Your task to perform on an android device: Search for seafood restaurants on Google Maps Image 0: 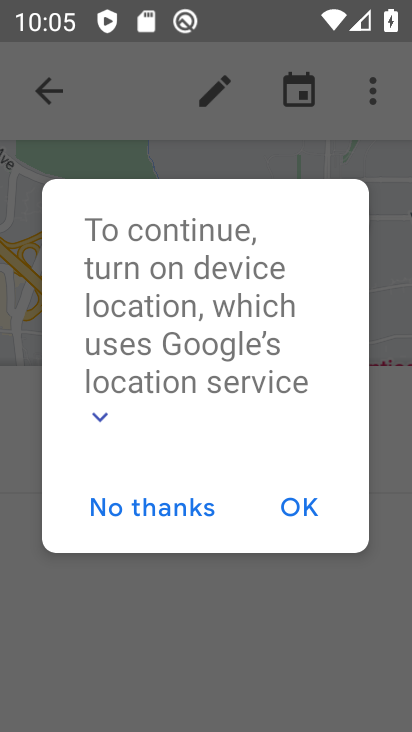
Step 0: click (296, 505)
Your task to perform on an android device: Search for seafood restaurants on Google Maps Image 1: 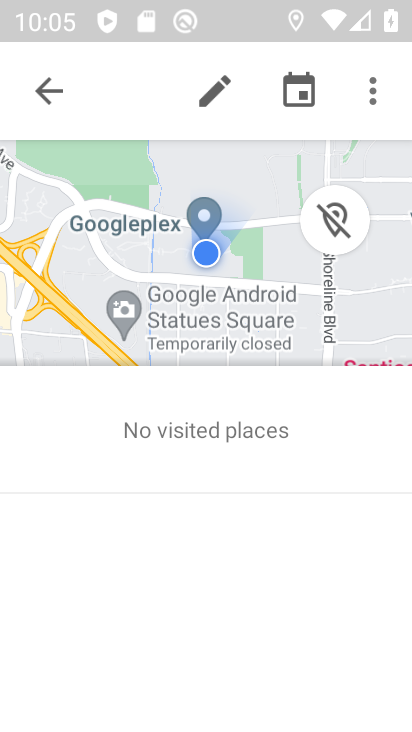
Step 1: press home button
Your task to perform on an android device: Search for seafood restaurants on Google Maps Image 2: 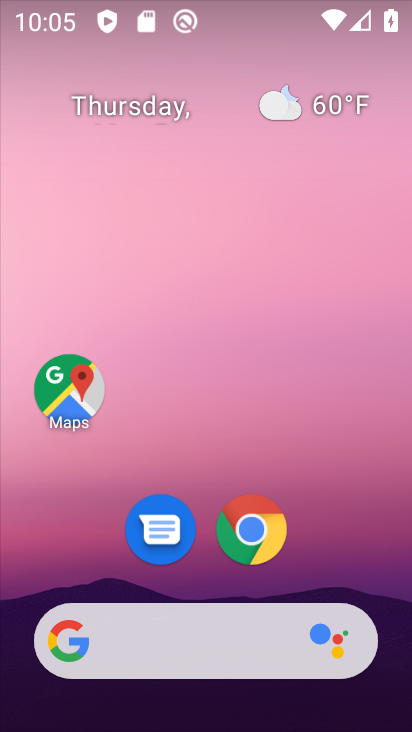
Step 2: click (72, 380)
Your task to perform on an android device: Search for seafood restaurants on Google Maps Image 3: 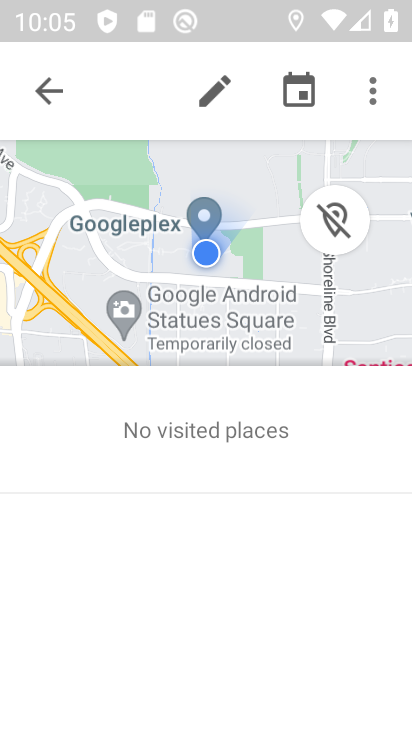
Step 3: click (48, 86)
Your task to perform on an android device: Search for seafood restaurants on Google Maps Image 4: 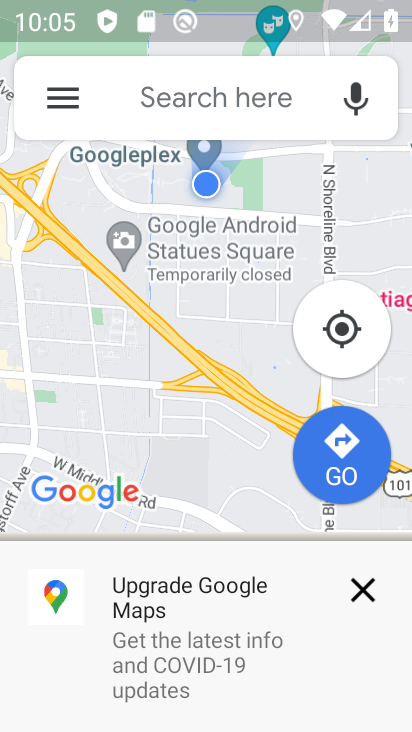
Step 4: click (148, 90)
Your task to perform on an android device: Search for seafood restaurants on Google Maps Image 5: 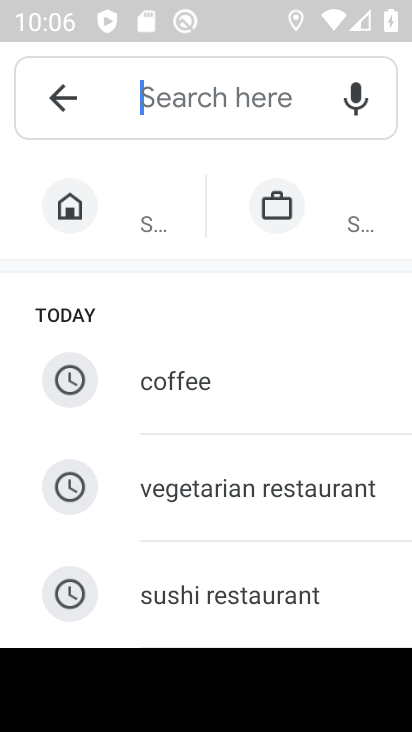
Step 5: type "seafood restaurants"
Your task to perform on an android device: Search for seafood restaurants on Google Maps Image 6: 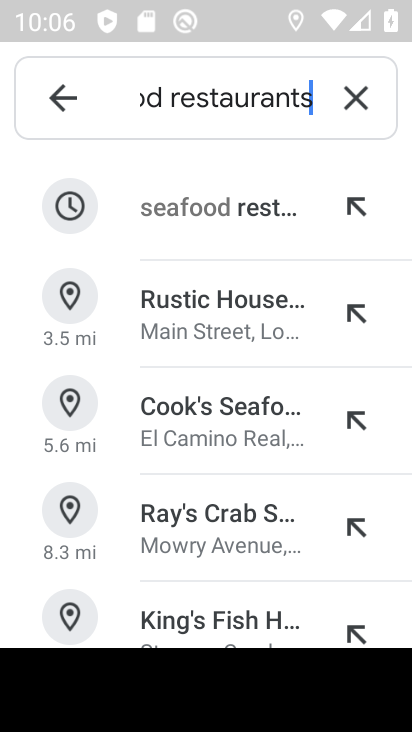
Step 6: click (217, 208)
Your task to perform on an android device: Search for seafood restaurants on Google Maps Image 7: 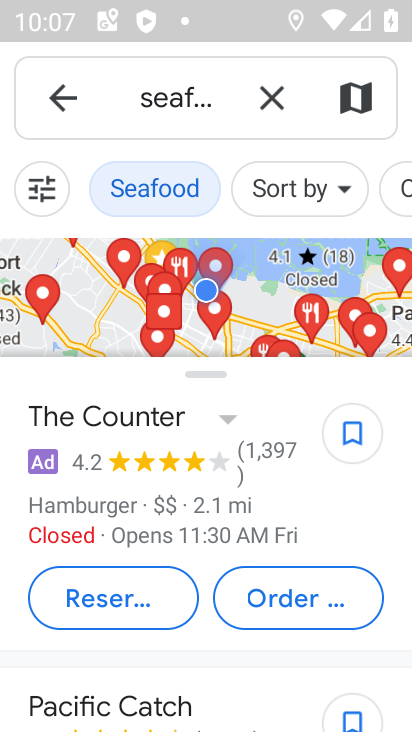
Step 7: task complete